Your task to perform on an android device: Open Chrome and go to the settings page Image 0: 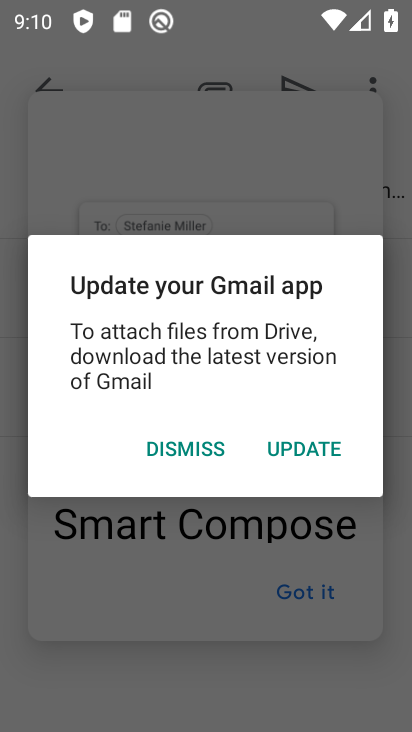
Step 0: press home button
Your task to perform on an android device: Open Chrome and go to the settings page Image 1: 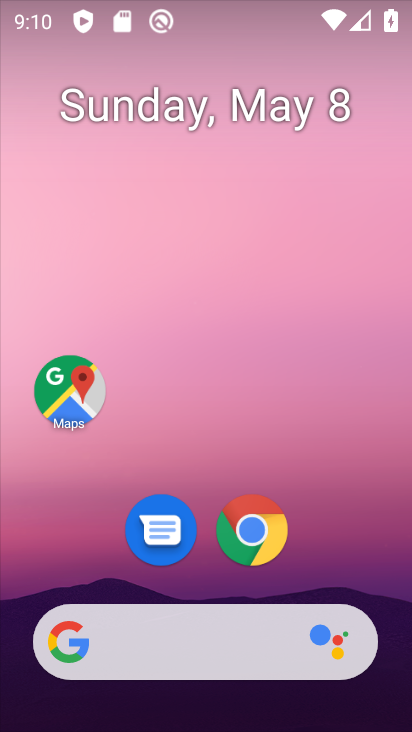
Step 1: click (271, 523)
Your task to perform on an android device: Open Chrome and go to the settings page Image 2: 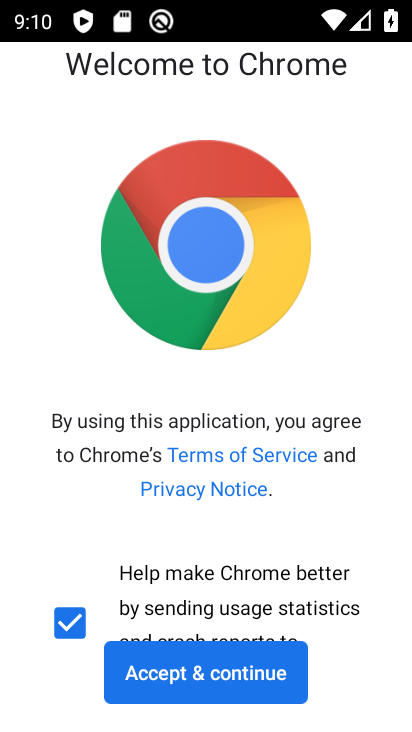
Step 2: click (199, 676)
Your task to perform on an android device: Open Chrome and go to the settings page Image 3: 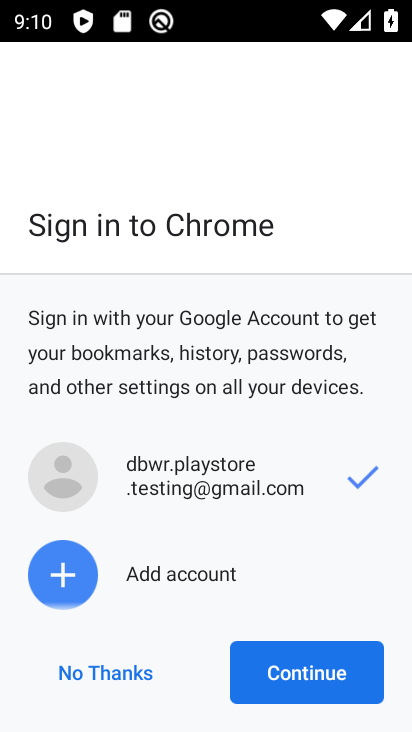
Step 3: click (286, 667)
Your task to perform on an android device: Open Chrome and go to the settings page Image 4: 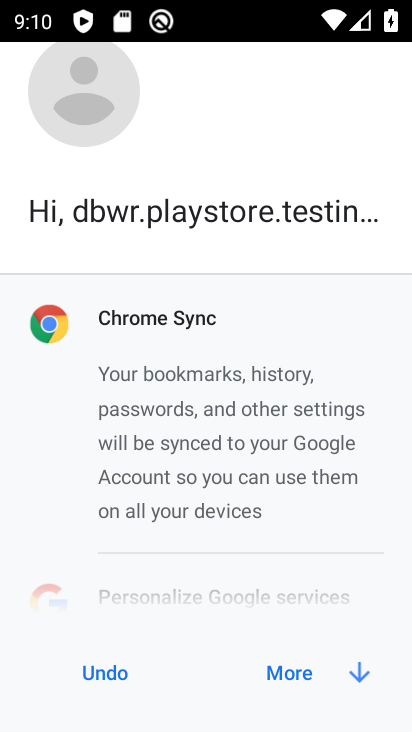
Step 4: click (280, 678)
Your task to perform on an android device: Open Chrome and go to the settings page Image 5: 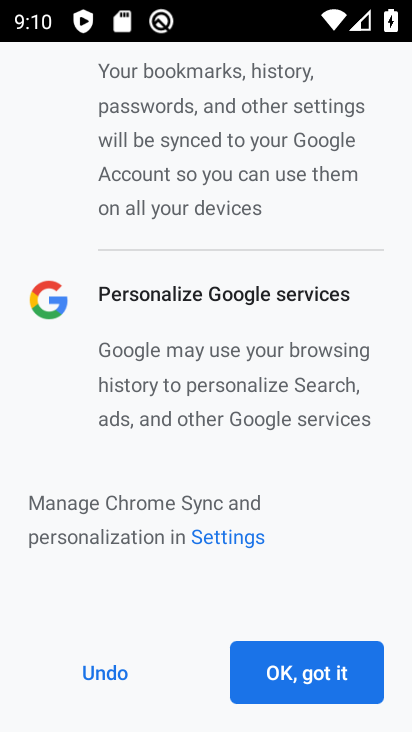
Step 5: click (280, 678)
Your task to perform on an android device: Open Chrome and go to the settings page Image 6: 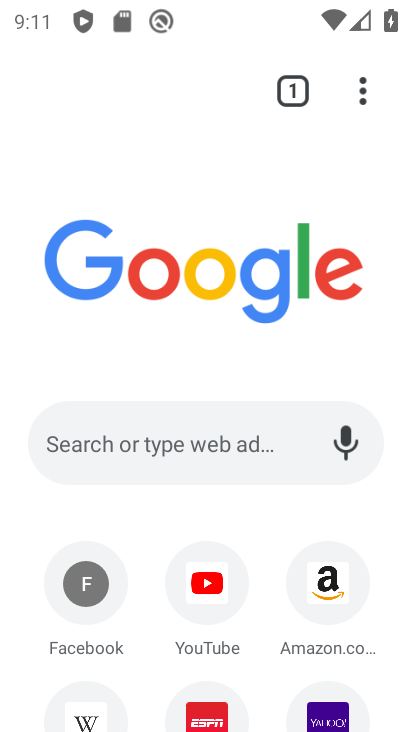
Step 6: click (361, 89)
Your task to perform on an android device: Open Chrome and go to the settings page Image 7: 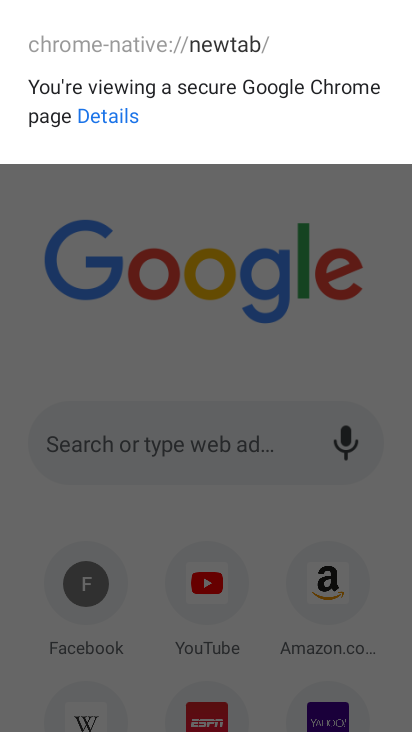
Step 7: click (179, 219)
Your task to perform on an android device: Open Chrome and go to the settings page Image 8: 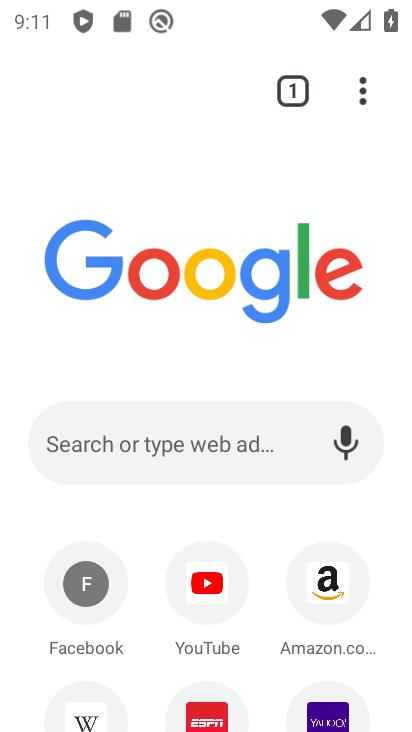
Step 8: click (359, 94)
Your task to perform on an android device: Open Chrome and go to the settings page Image 9: 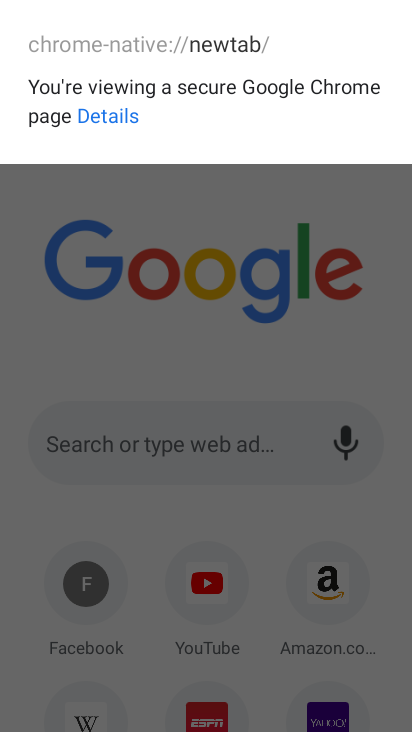
Step 9: click (321, 207)
Your task to perform on an android device: Open Chrome and go to the settings page Image 10: 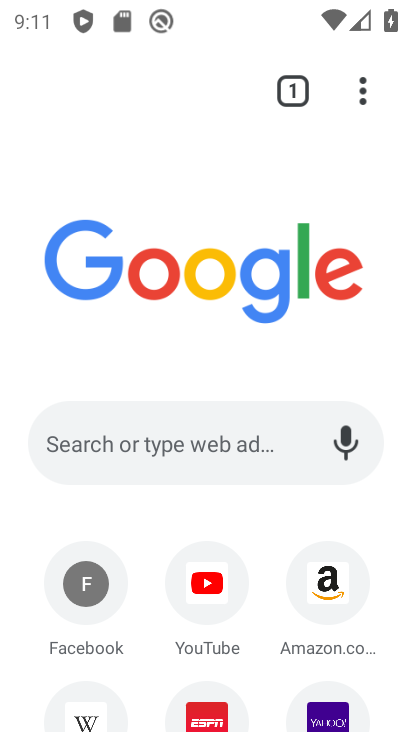
Step 10: click (369, 88)
Your task to perform on an android device: Open Chrome and go to the settings page Image 11: 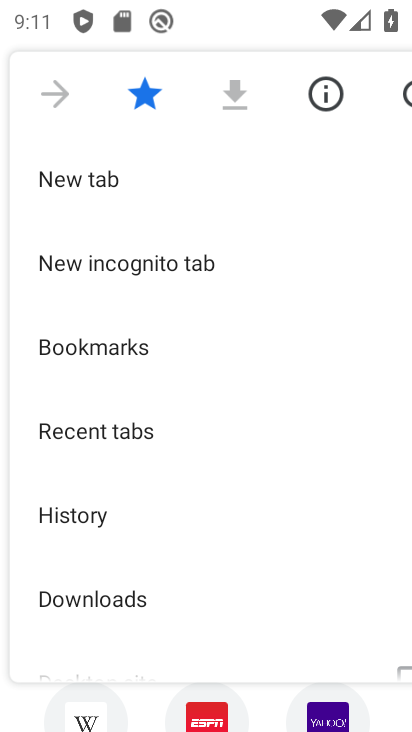
Step 11: drag from (151, 651) to (155, 237)
Your task to perform on an android device: Open Chrome and go to the settings page Image 12: 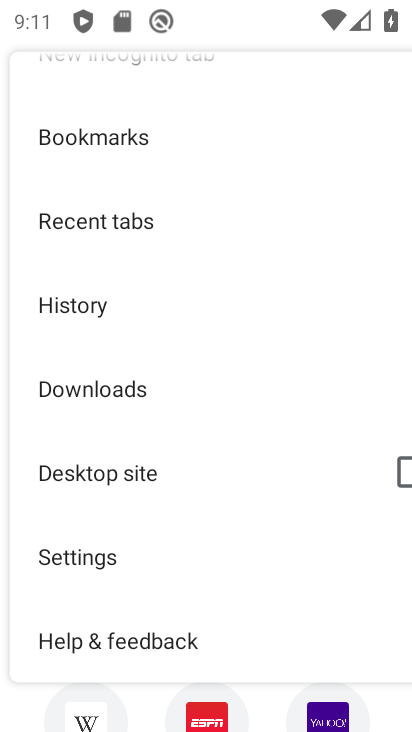
Step 12: drag from (75, 610) to (107, 213)
Your task to perform on an android device: Open Chrome and go to the settings page Image 13: 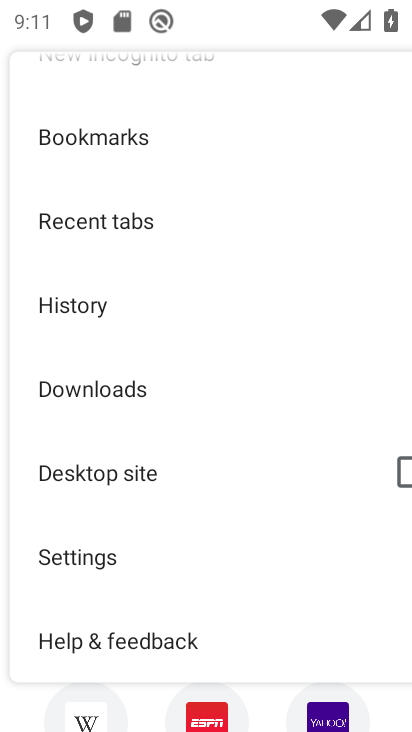
Step 13: click (72, 561)
Your task to perform on an android device: Open Chrome and go to the settings page Image 14: 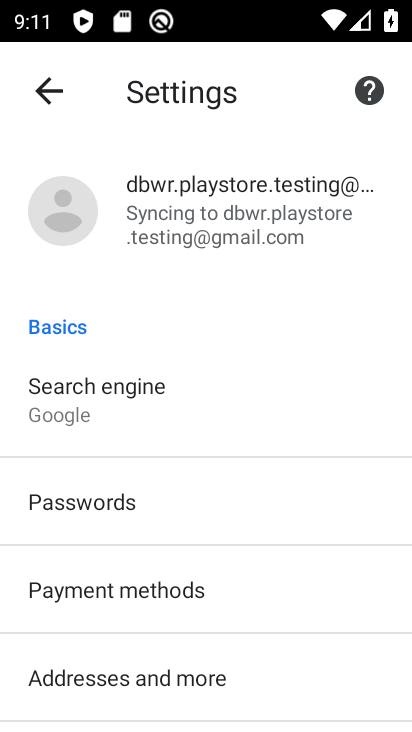
Step 14: drag from (140, 610) to (160, 367)
Your task to perform on an android device: Open Chrome and go to the settings page Image 15: 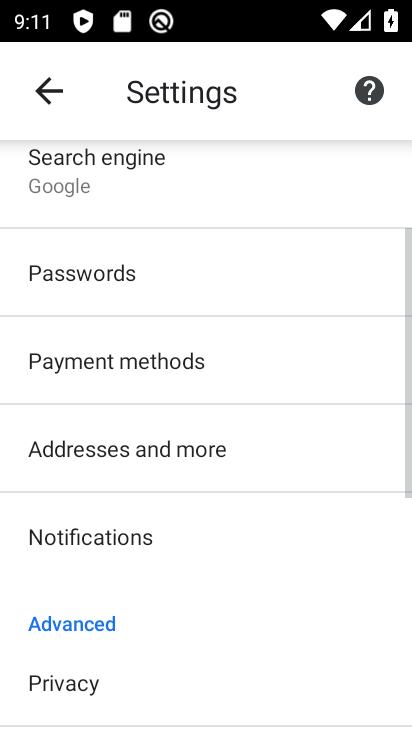
Step 15: drag from (168, 607) to (181, 319)
Your task to perform on an android device: Open Chrome and go to the settings page Image 16: 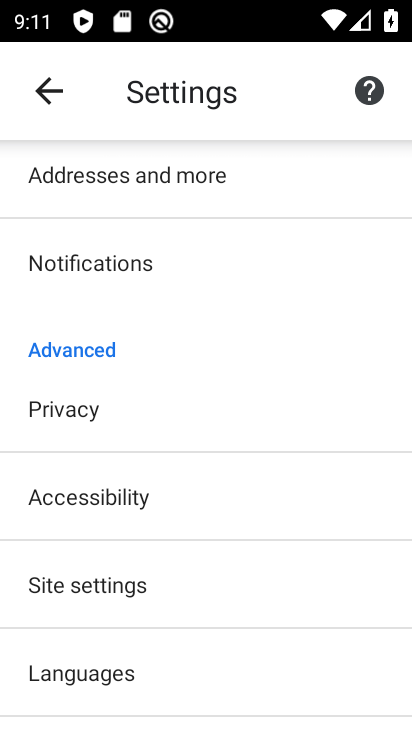
Step 16: click (156, 367)
Your task to perform on an android device: Open Chrome and go to the settings page Image 17: 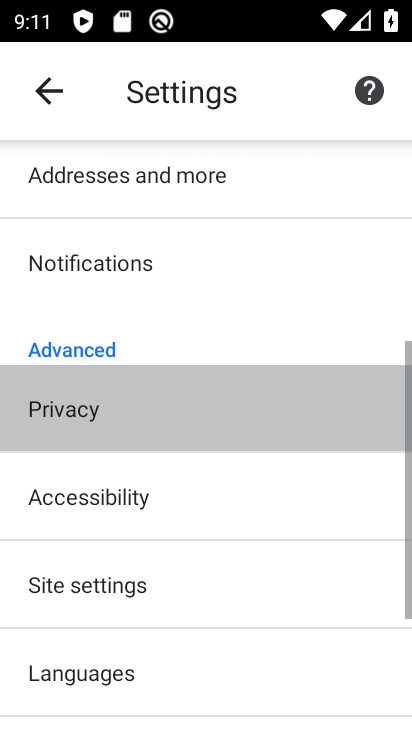
Step 17: task complete